Your task to perform on an android device: toggle notifications settings in the gmail app Image 0: 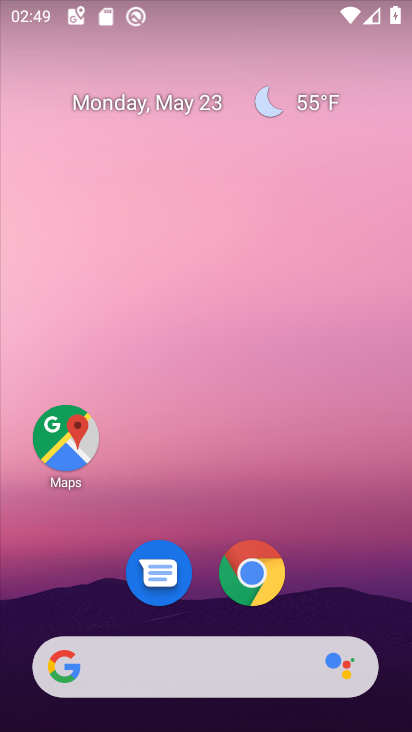
Step 0: drag from (298, 501) to (263, 214)
Your task to perform on an android device: toggle notifications settings in the gmail app Image 1: 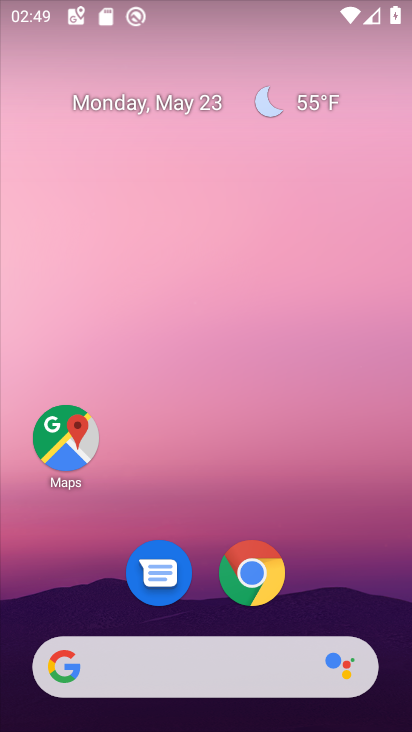
Step 1: drag from (331, 588) to (247, 80)
Your task to perform on an android device: toggle notifications settings in the gmail app Image 2: 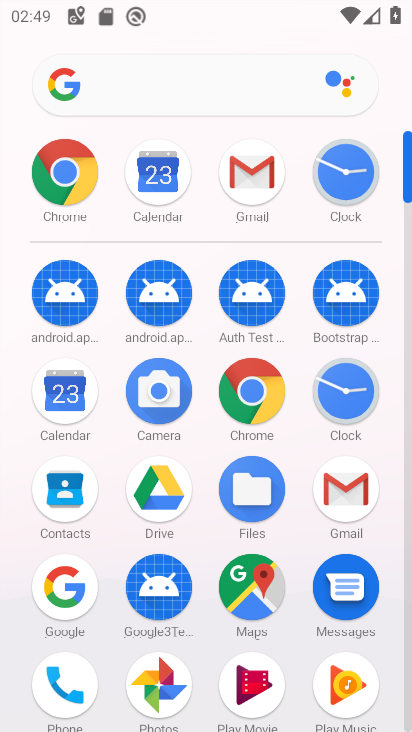
Step 2: click (232, 182)
Your task to perform on an android device: toggle notifications settings in the gmail app Image 3: 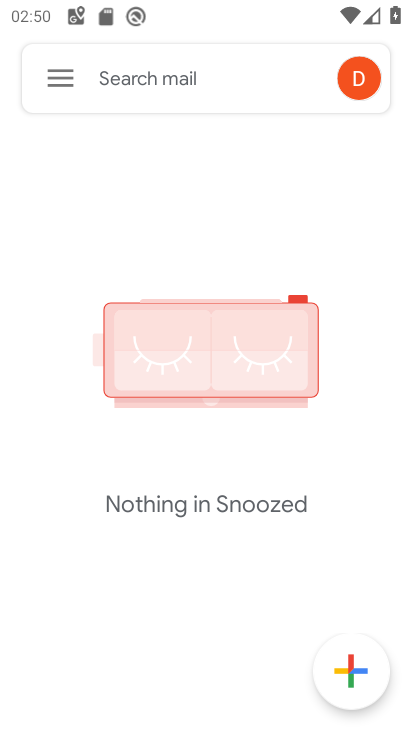
Step 3: click (55, 87)
Your task to perform on an android device: toggle notifications settings in the gmail app Image 4: 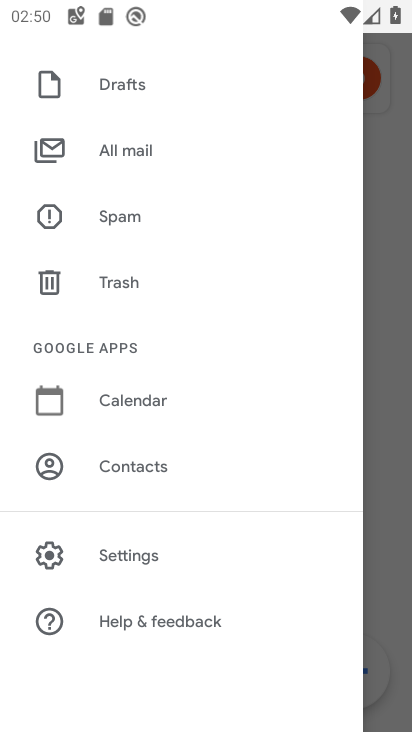
Step 4: click (127, 548)
Your task to perform on an android device: toggle notifications settings in the gmail app Image 5: 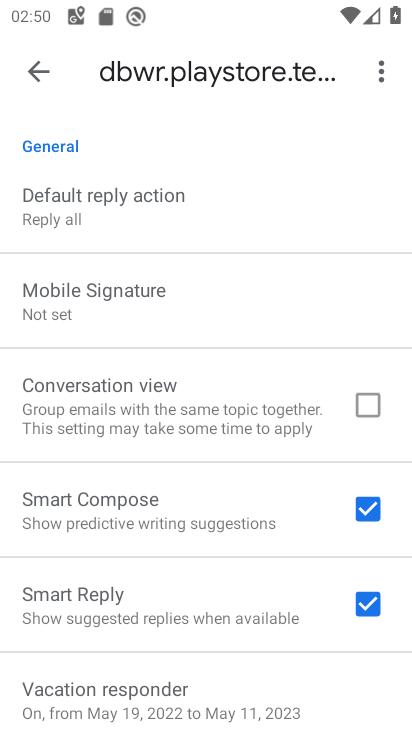
Step 5: drag from (114, 514) to (130, 220)
Your task to perform on an android device: toggle notifications settings in the gmail app Image 6: 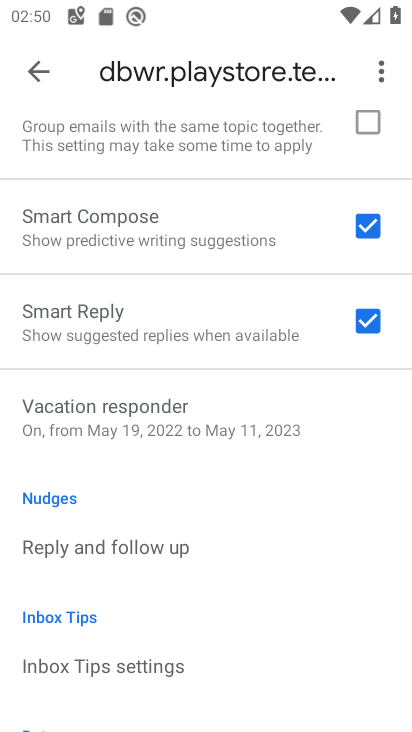
Step 6: drag from (122, 556) to (117, 174)
Your task to perform on an android device: toggle notifications settings in the gmail app Image 7: 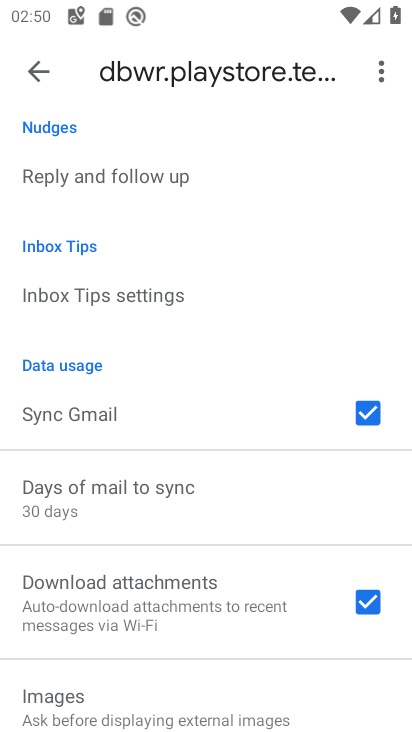
Step 7: drag from (116, 453) to (124, 156)
Your task to perform on an android device: toggle notifications settings in the gmail app Image 8: 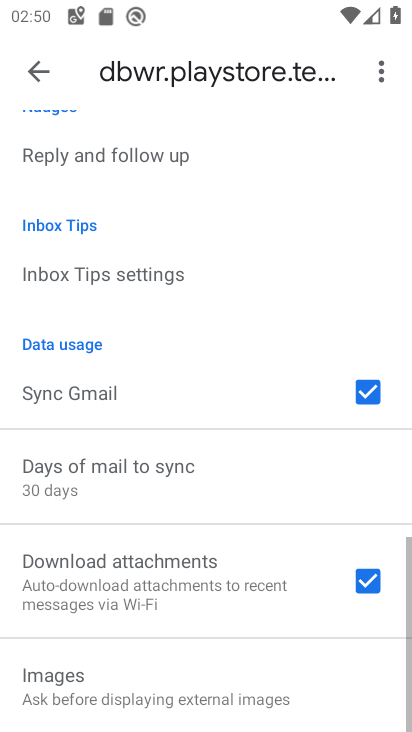
Step 8: drag from (150, 261) to (88, 680)
Your task to perform on an android device: toggle notifications settings in the gmail app Image 9: 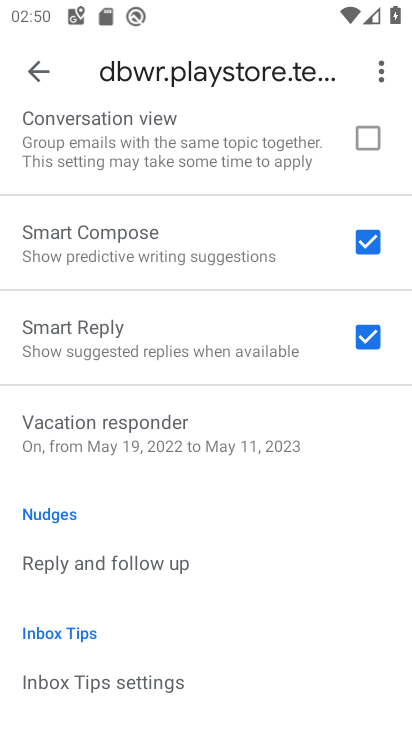
Step 9: drag from (154, 290) to (128, 605)
Your task to perform on an android device: toggle notifications settings in the gmail app Image 10: 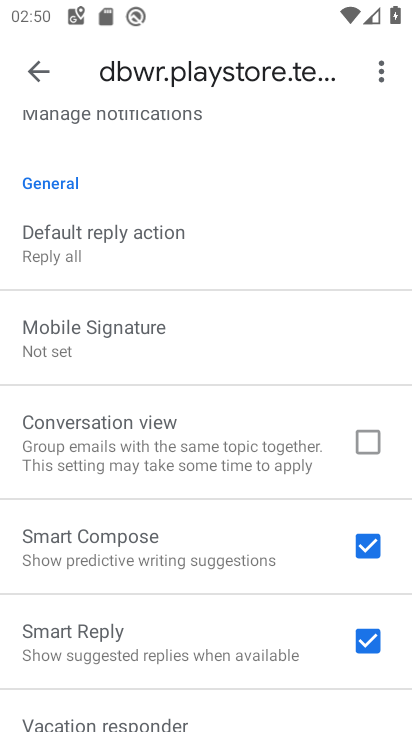
Step 10: drag from (120, 274) to (82, 583)
Your task to perform on an android device: toggle notifications settings in the gmail app Image 11: 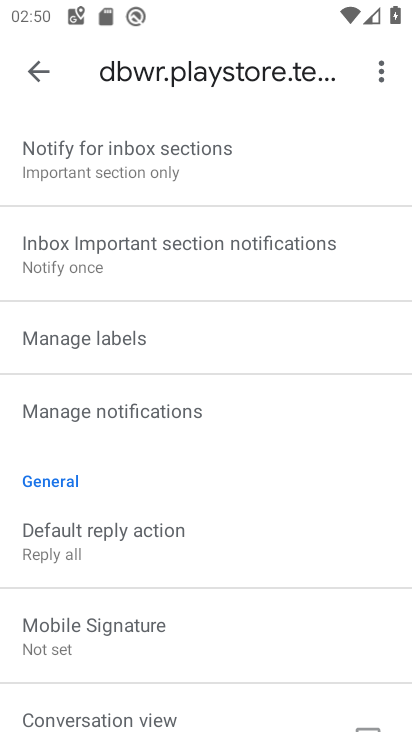
Step 11: drag from (122, 296) to (81, 590)
Your task to perform on an android device: toggle notifications settings in the gmail app Image 12: 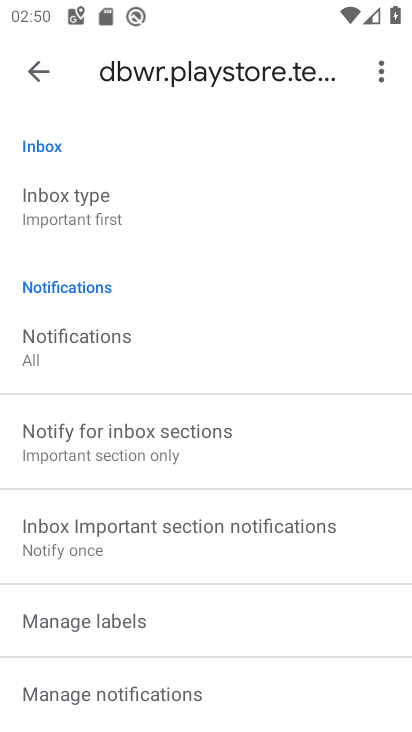
Step 12: click (143, 326)
Your task to perform on an android device: toggle notifications settings in the gmail app Image 13: 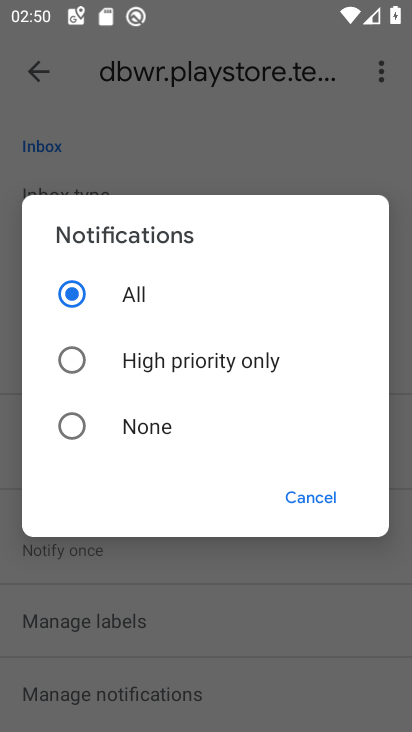
Step 13: click (78, 357)
Your task to perform on an android device: toggle notifications settings in the gmail app Image 14: 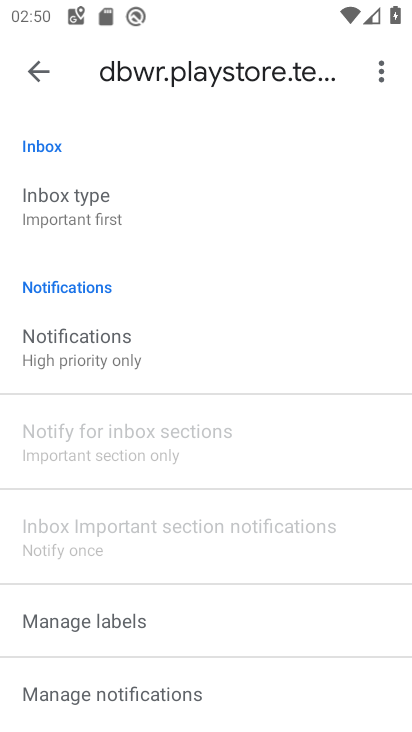
Step 14: task complete